Your task to perform on an android device: Open ESPN.com Image 0: 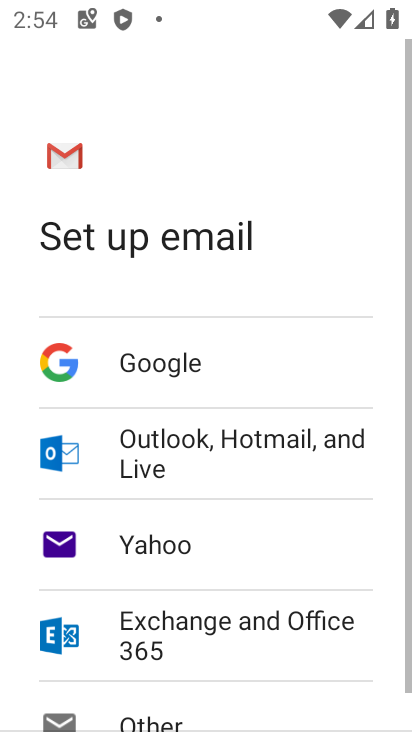
Step 0: press home button
Your task to perform on an android device: Open ESPN.com Image 1: 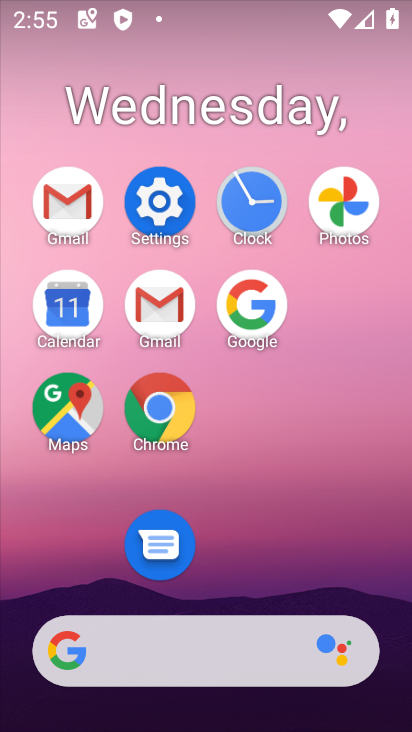
Step 1: click (154, 415)
Your task to perform on an android device: Open ESPN.com Image 2: 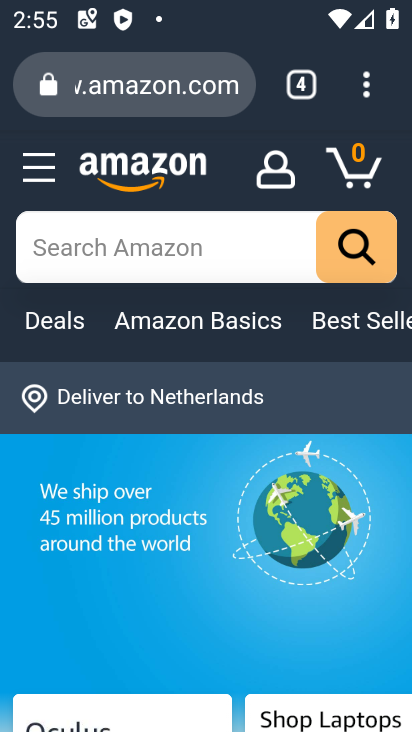
Step 2: click (305, 80)
Your task to perform on an android device: Open ESPN.com Image 3: 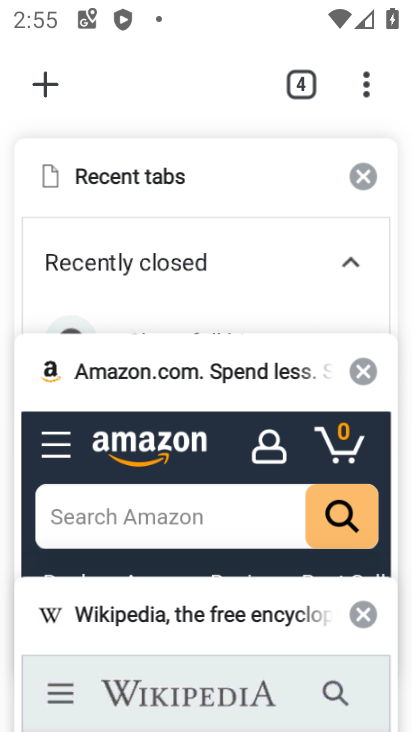
Step 3: click (55, 95)
Your task to perform on an android device: Open ESPN.com Image 4: 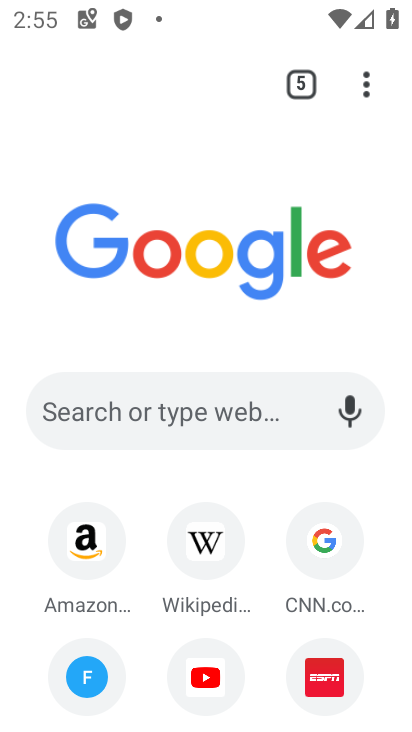
Step 4: click (330, 671)
Your task to perform on an android device: Open ESPN.com Image 5: 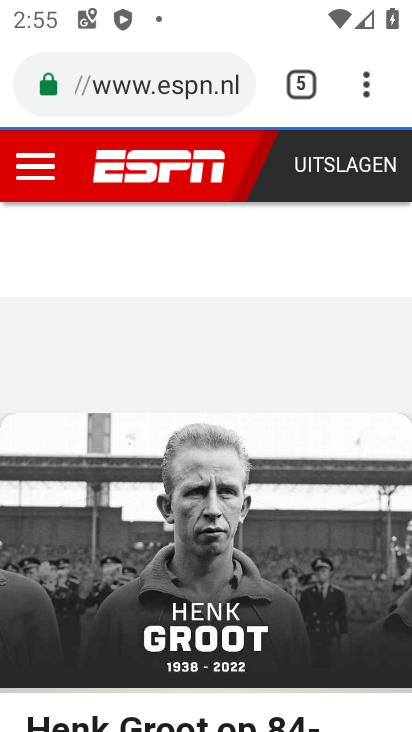
Step 5: task complete